Your task to perform on an android device: Play the last video I watched on Youtube Image 0: 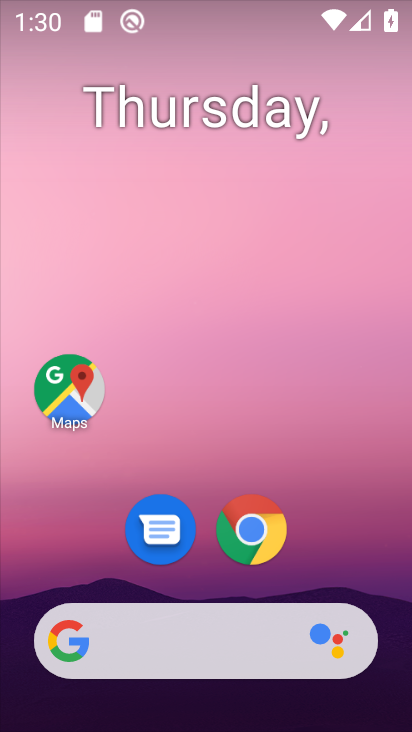
Step 0: drag from (264, 355) to (297, 95)
Your task to perform on an android device: Play the last video I watched on Youtube Image 1: 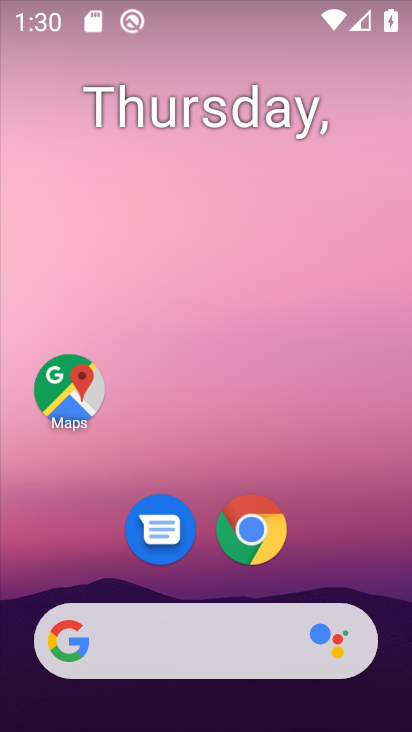
Step 1: drag from (285, 576) to (347, 50)
Your task to perform on an android device: Play the last video I watched on Youtube Image 2: 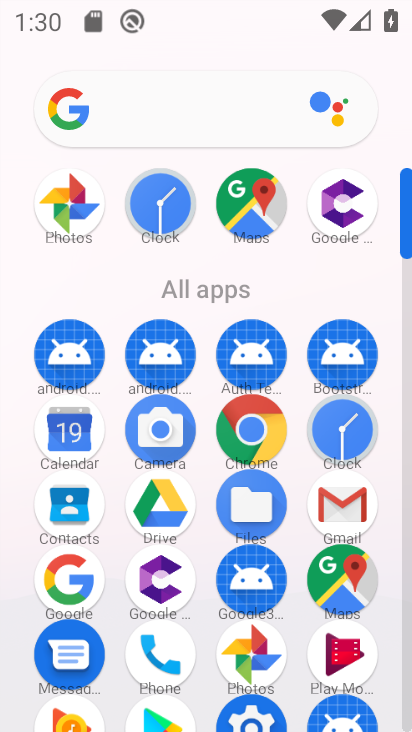
Step 2: drag from (208, 668) to (268, 191)
Your task to perform on an android device: Play the last video I watched on Youtube Image 3: 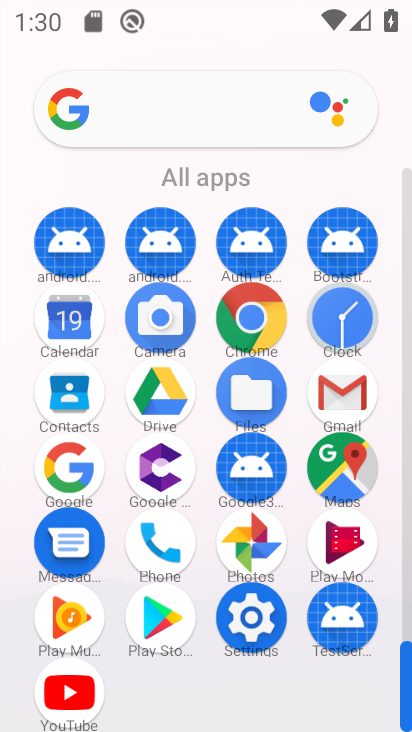
Step 3: click (66, 704)
Your task to perform on an android device: Play the last video I watched on Youtube Image 4: 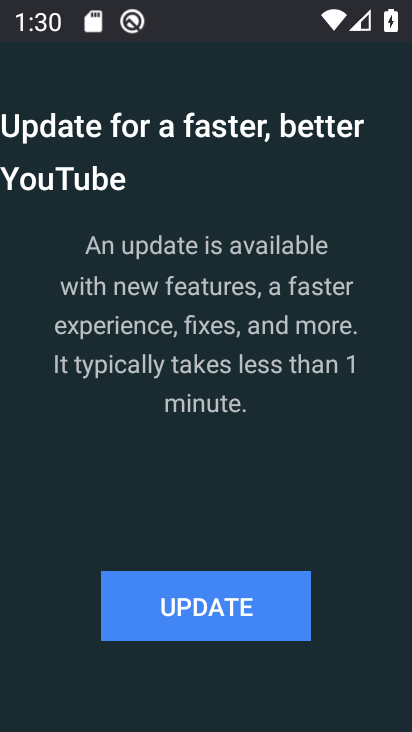
Step 4: click (193, 622)
Your task to perform on an android device: Play the last video I watched on Youtube Image 5: 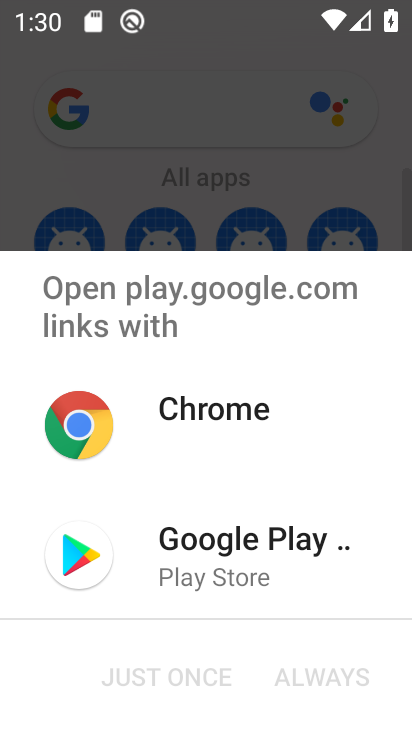
Step 5: click (189, 562)
Your task to perform on an android device: Play the last video I watched on Youtube Image 6: 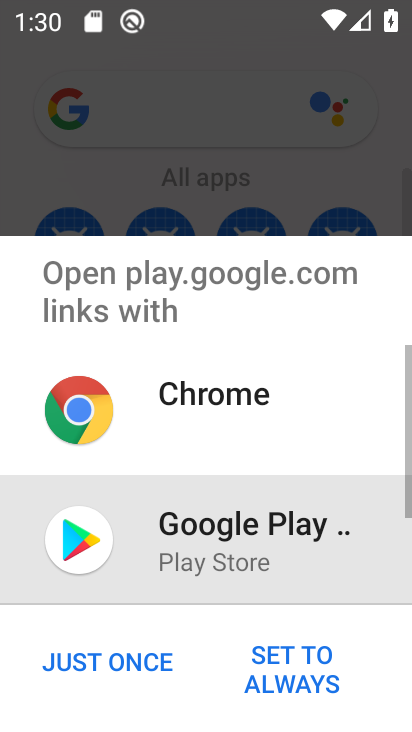
Step 6: click (281, 677)
Your task to perform on an android device: Play the last video I watched on Youtube Image 7: 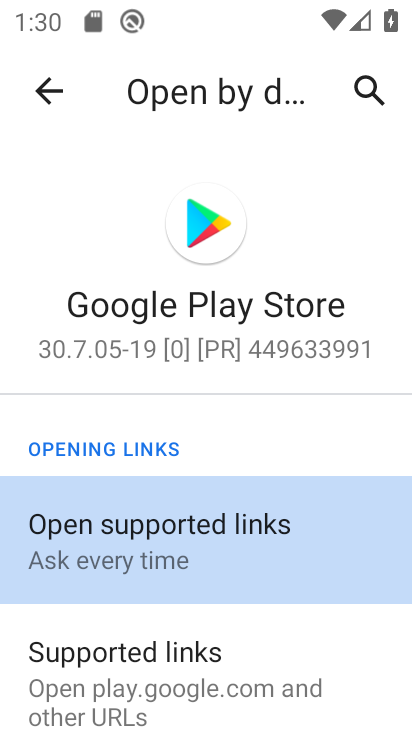
Step 7: click (158, 554)
Your task to perform on an android device: Play the last video I watched on Youtube Image 8: 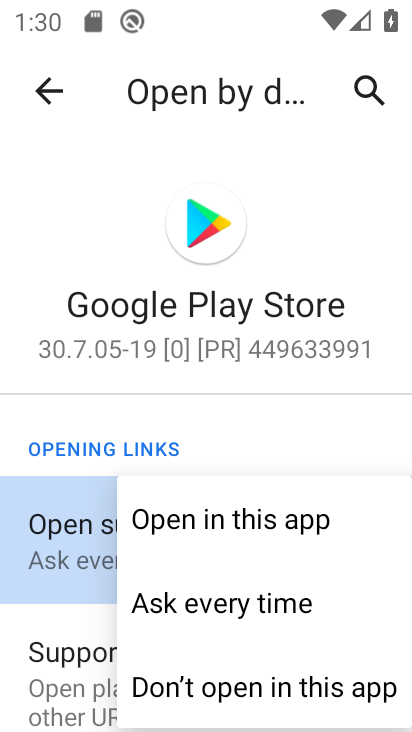
Step 8: click (193, 515)
Your task to perform on an android device: Play the last video I watched on Youtube Image 9: 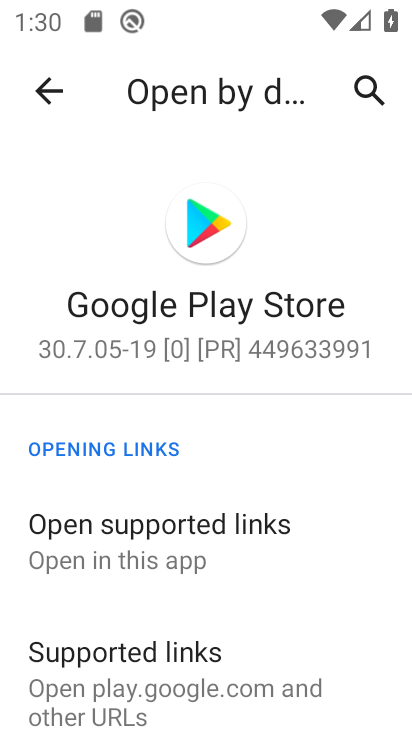
Step 9: click (51, 97)
Your task to perform on an android device: Play the last video I watched on Youtube Image 10: 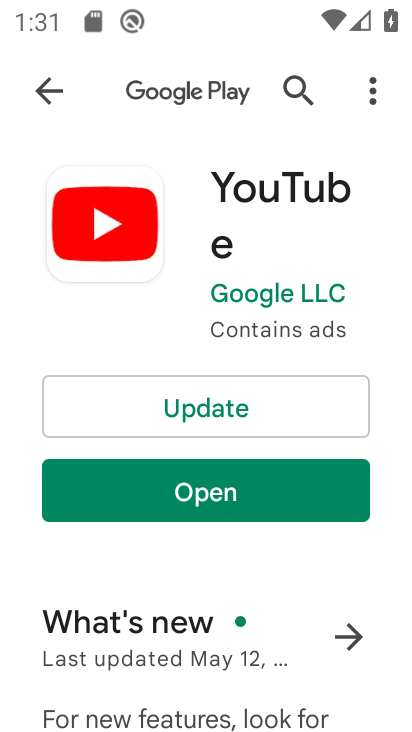
Step 10: click (184, 413)
Your task to perform on an android device: Play the last video I watched on Youtube Image 11: 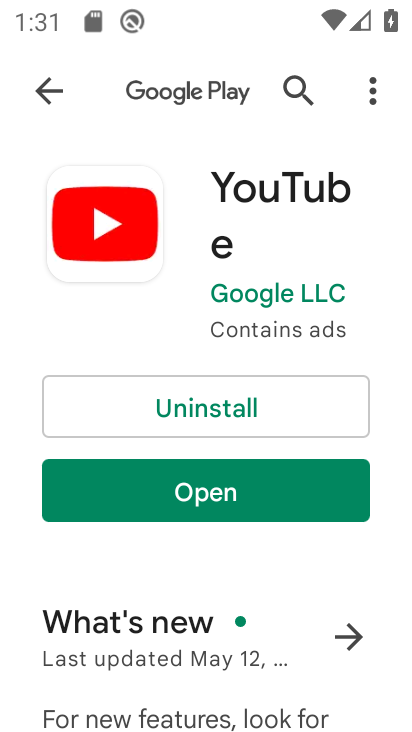
Step 11: click (197, 498)
Your task to perform on an android device: Play the last video I watched on Youtube Image 12: 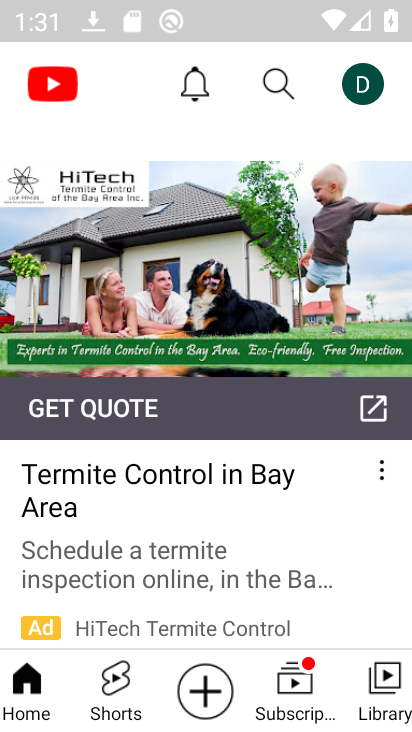
Step 12: click (373, 714)
Your task to perform on an android device: Play the last video I watched on Youtube Image 13: 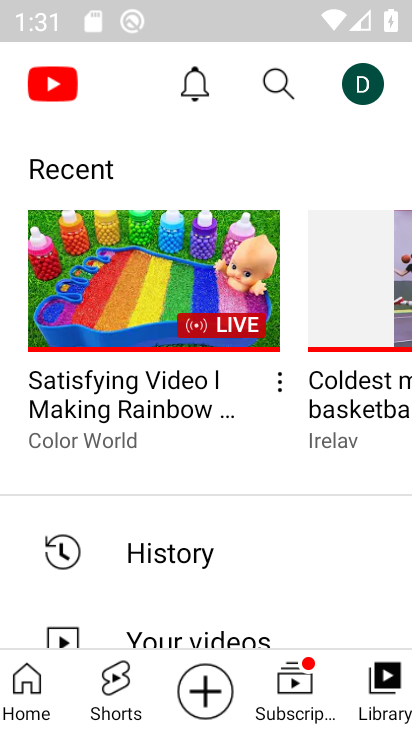
Step 13: task complete